Your task to perform on an android device: Go to location settings Image 0: 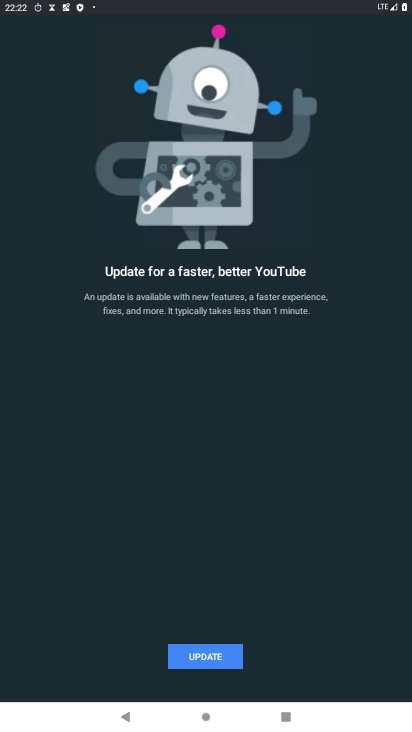
Step 0: press home button
Your task to perform on an android device: Go to location settings Image 1: 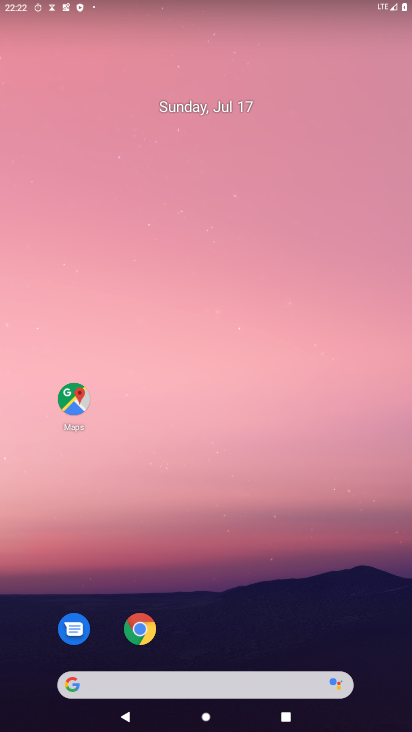
Step 1: drag from (235, 691) to (201, 110)
Your task to perform on an android device: Go to location settings Image 2: 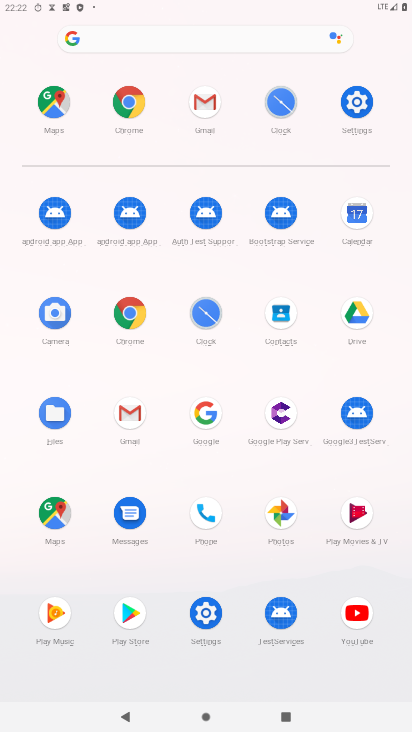
Step 2: click (358, 97)
Your task to perform on an android device: Go to location settings Image 3: 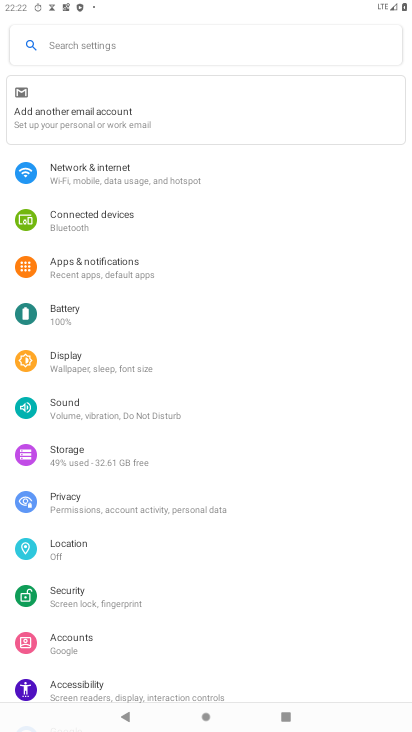
Step 3: click (66, 543)
Your task to perform on an android device: Go to location settings Image 4: 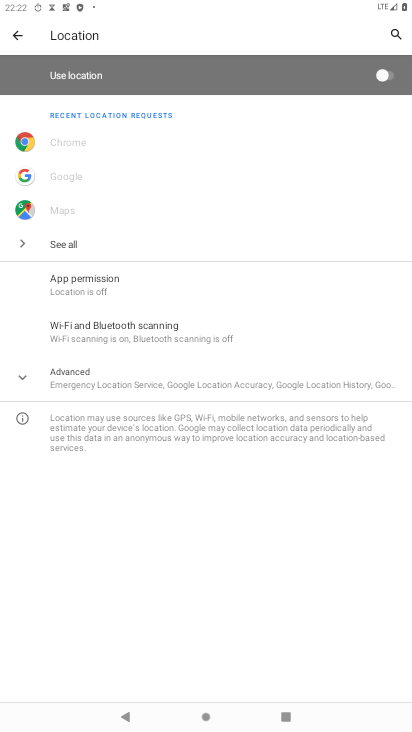
Step 4: task complete